Your task to perform on an android device: What's the weather? Image 0: 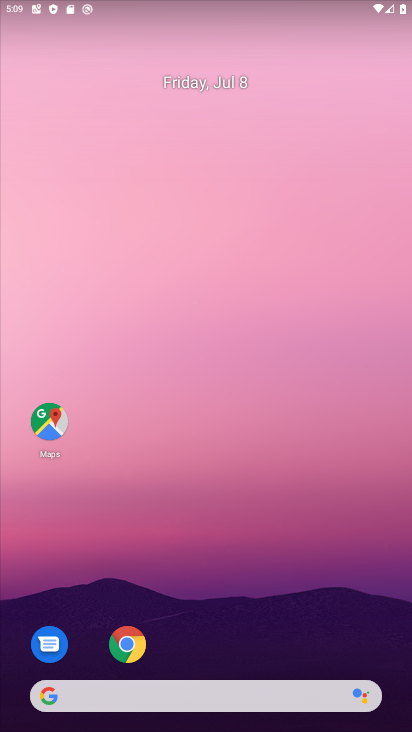
Step 0: click (271, 702)
Your task to perform on an android device: What's the weather? Image 1: 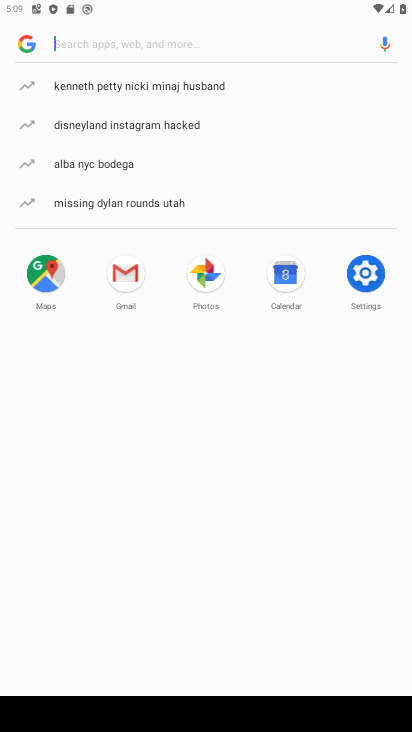
Step 1: type "What's the weather?"
Your task to perform on an android device: What's the weather? Image 2: 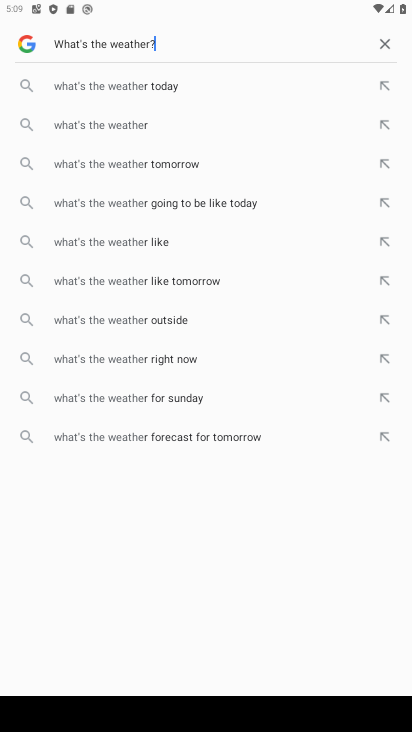
Step 2: press enter
Your task to perform on an android device: What's the weather? Image 3: 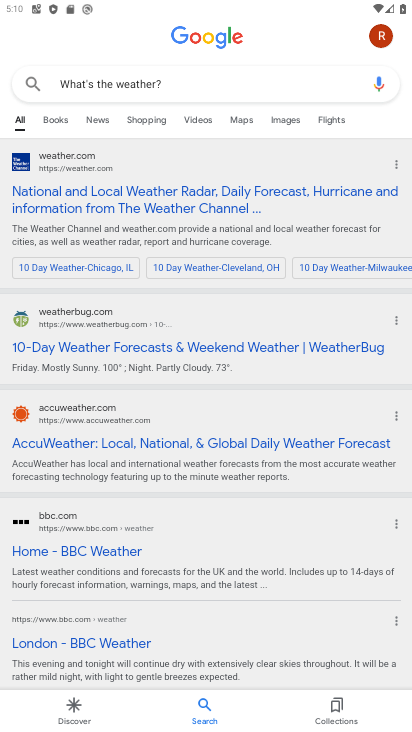
Step 3: task complete